Your task to perform on an android device: Go to settings Image 0: 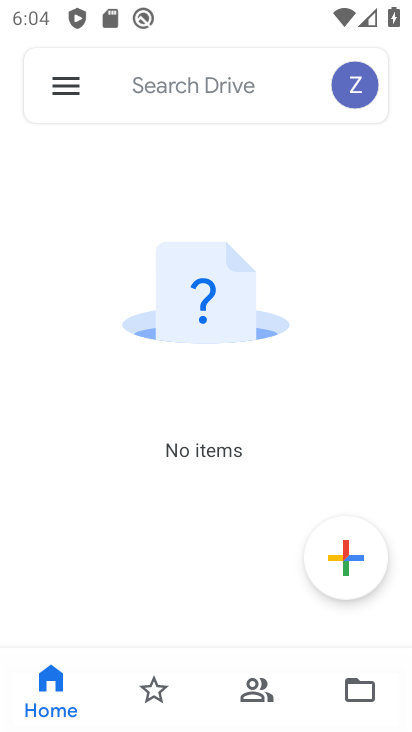
Step 0: press home button
Your task to perform on an android device: Go to settings Image 1: 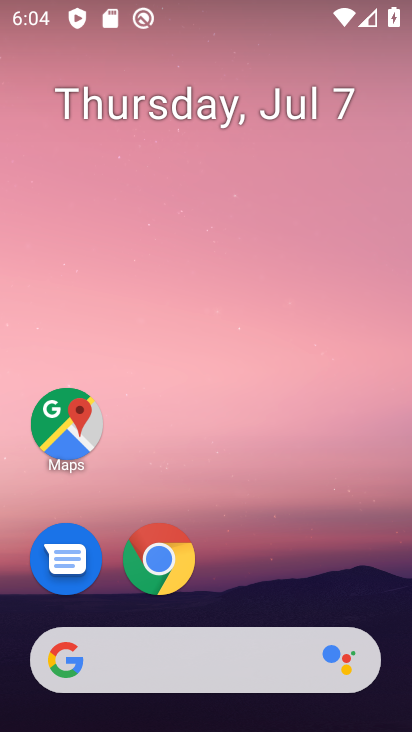
Step 1: drag from (303, 625) to (284, 71)
Your task to perform on an android device: Go to settings Image 2: 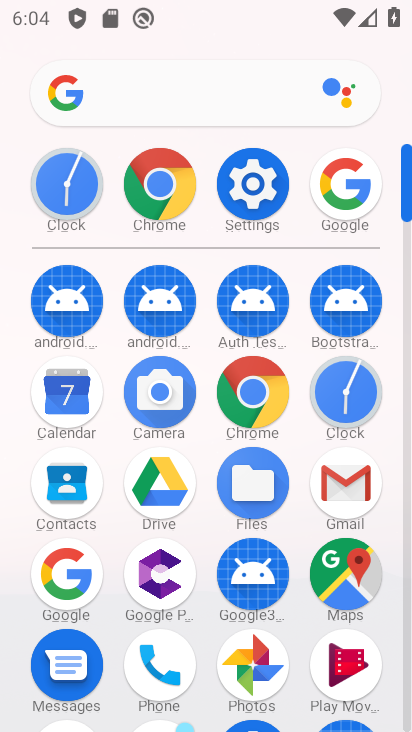
Step 2: click (273, 204)
Your task to perform on an android device: Go to settings Image 3: 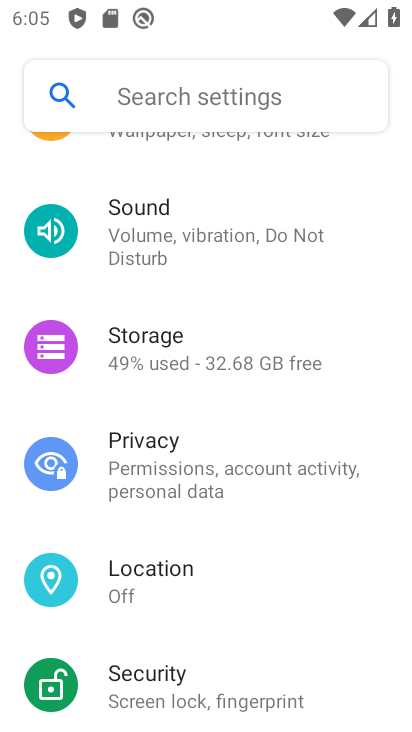
Step 3: task complete